Your task to perform on an android device: open device folders in google photos Image 0: 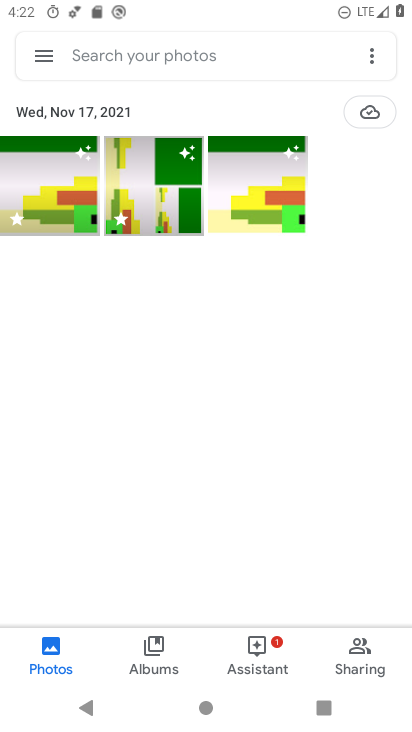
Step 0: click (45, 54)
Your task to perform on an android device: open device folders in google photos Image 1: 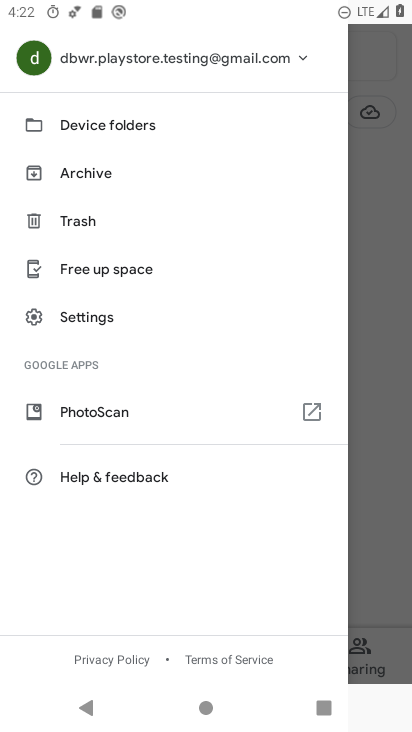
Step 1: click (92, 116)
Your task to perform on an android device: open device folders in google photos Image 2: 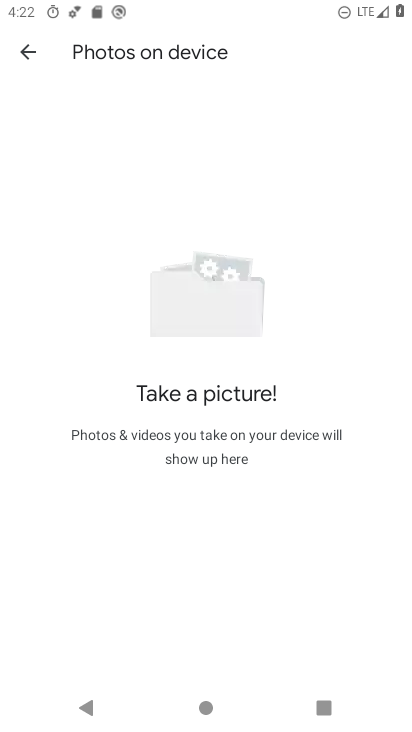
Step 2: task complete